Your task to perform on an android device: Open the phone app and click the voicemail tab. Image 0: 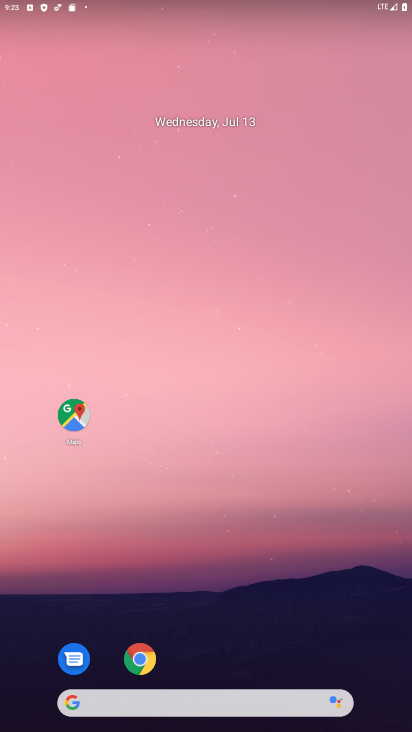
Step 0: drag from (382, 655) to (350, 116)
Your task to perform on an android device: Open the phone app and click the voicemail tab. Image 1: 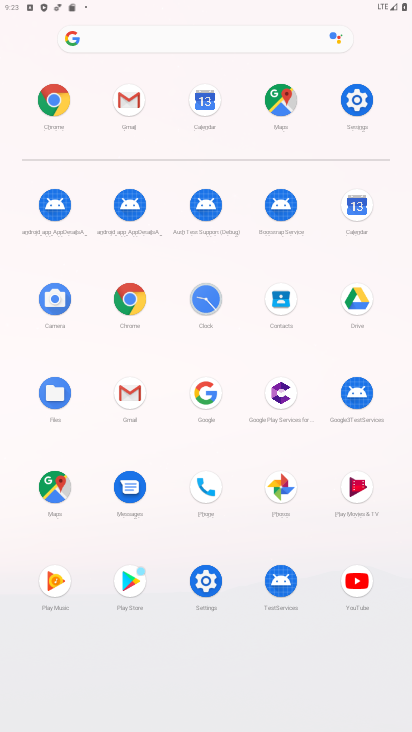
Step 1: click (199, 481)
Your task to perform on an android device: Open the phone app and click the voicemail tab. Image 2: 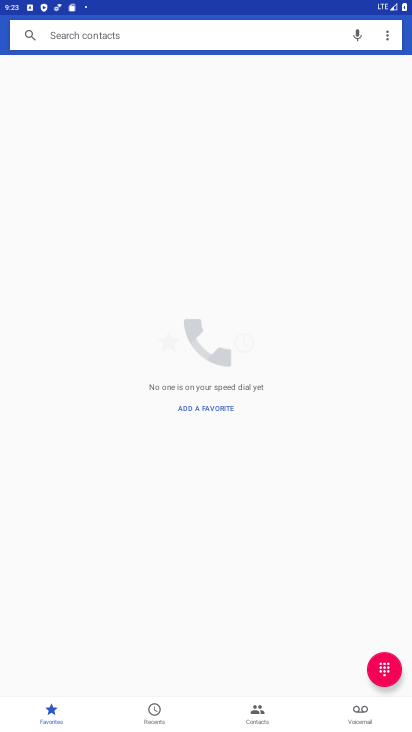
Step 2: click (357, 709)
Your task to perform on an android device: Open the phone app and click the voicemail tab. Image 3: 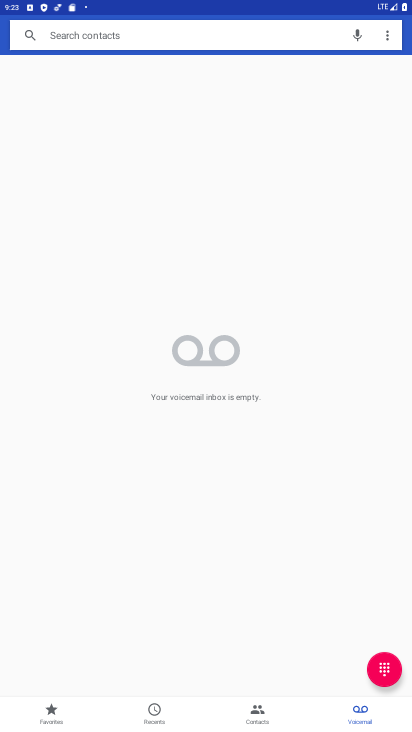
Step 3: task complete